Your task to perform on an android device: Go to sound settings Image 0: 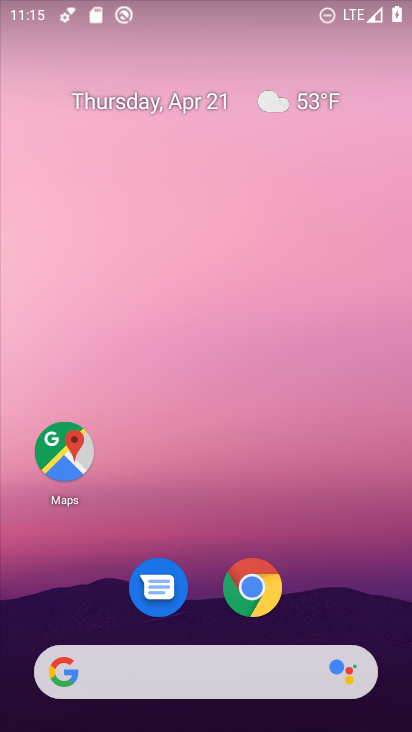
Step 0: drag from (154, 686) to (158, 132)
Your task to perform on an android device: Go to sound settings Image 1: 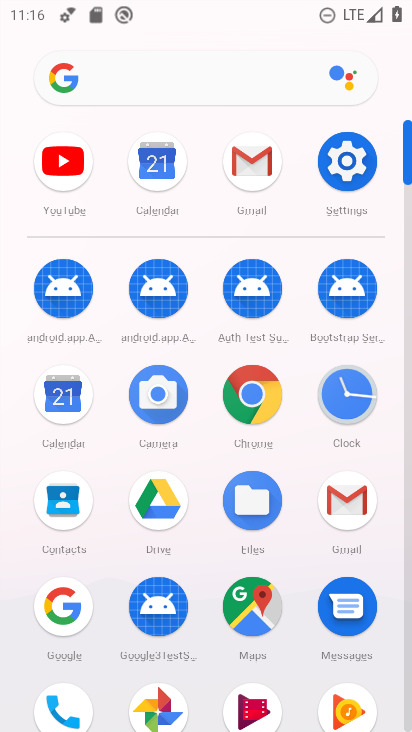
Step 1: click (330, 173)
Your task to perform on an android device: Go to sound settings Image 2: 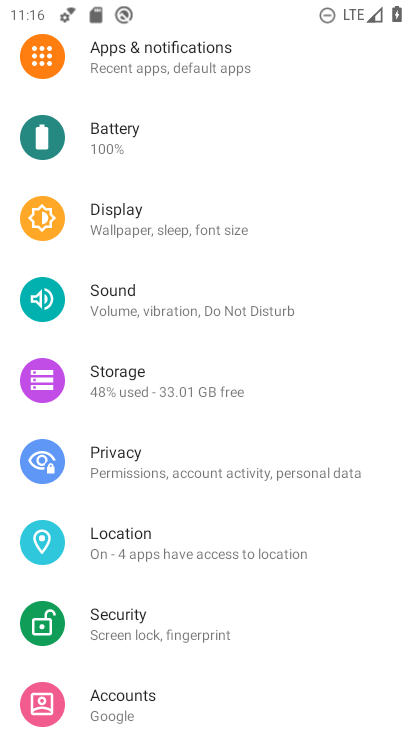
Step 2: click (145, 305)
Your task to perform on an android device: Go to sound settings Image 3: 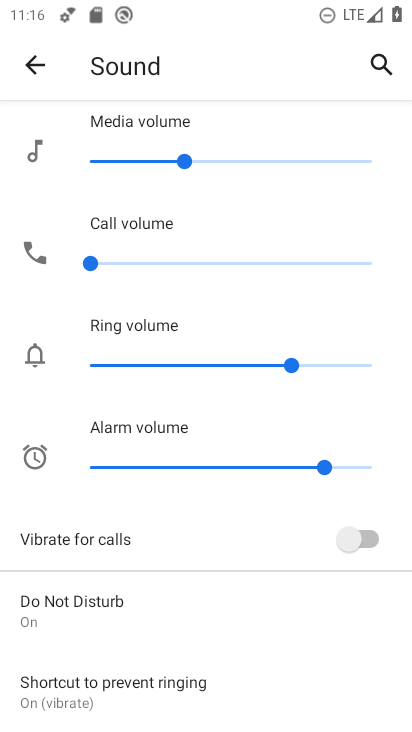
Step 3: task complete